Your task to perform on an android device: toggle translation in the chrome app Image 0: 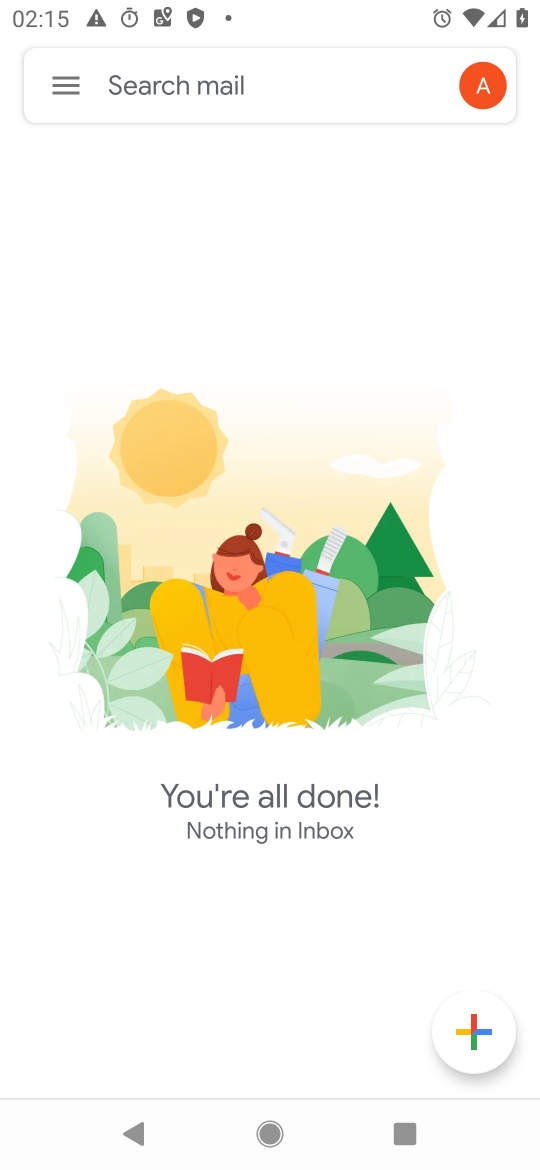
Step 0: press home button
Your task to perform on an android device: toggle translation in the chrome app Image 1: 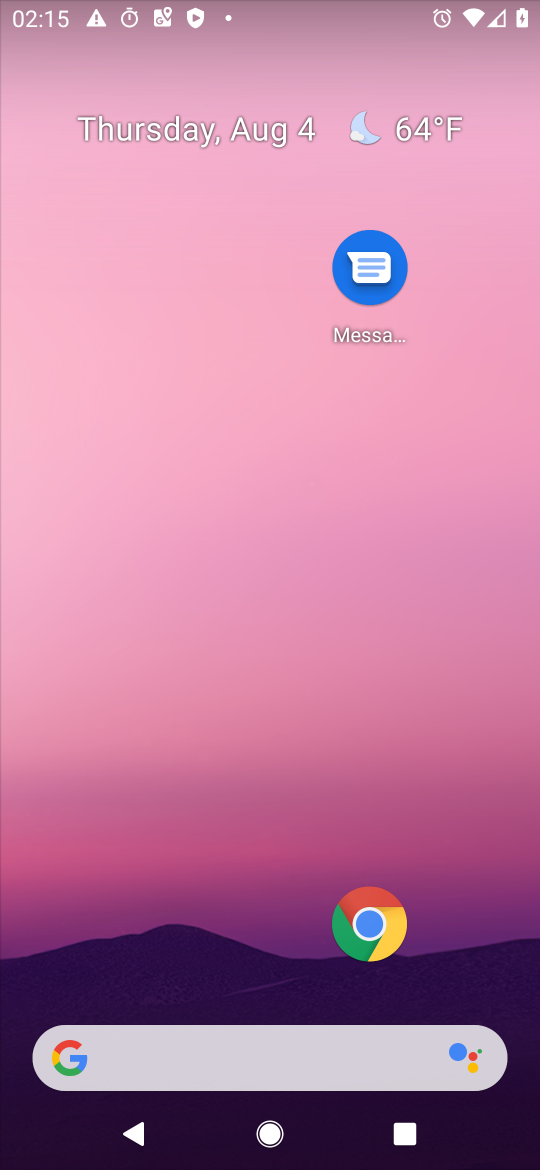
Step 1: click (369, 895)
Your task to perform on an android device: toggle translation in the chrome app Image 2: 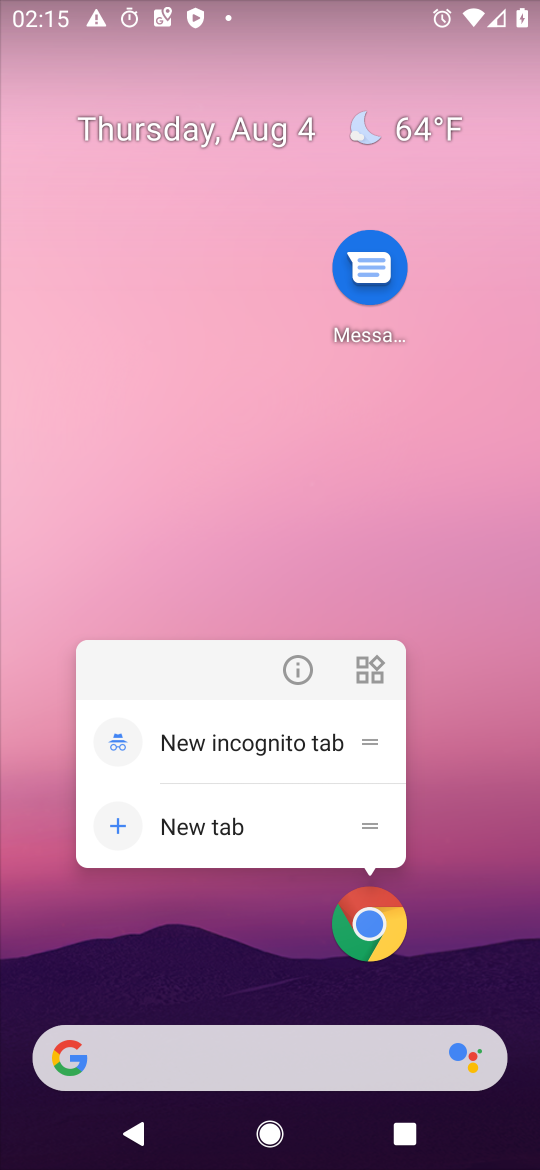
Step 2: click (342, 931)
Your task to perform on an android device: toggle translation in the chrome app Image 3: 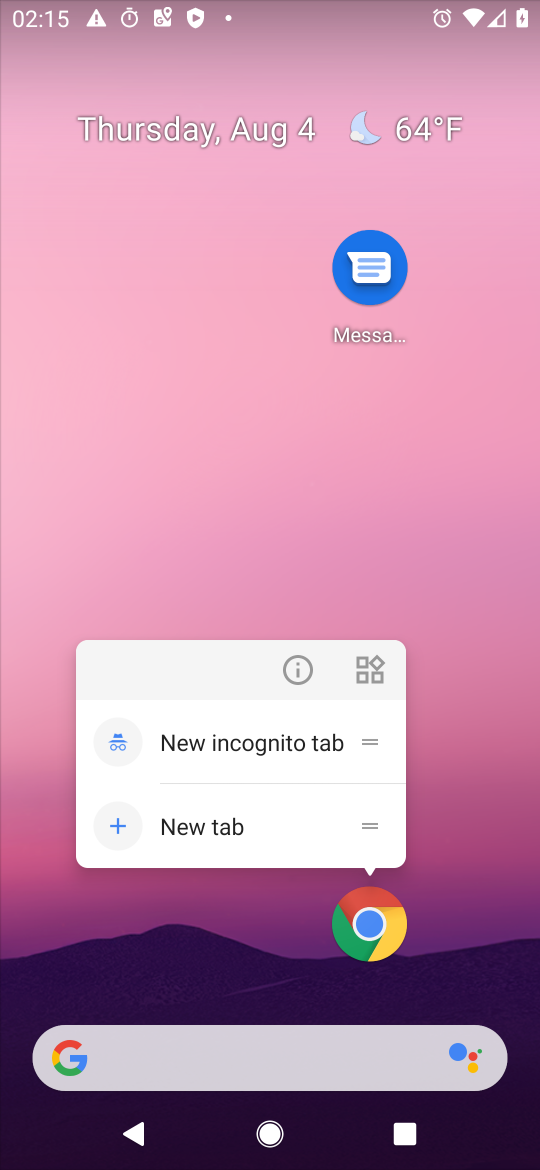
Step 3: click (384, 929)
Your task to perform on an android device: toggle translation in the chrome app Image 4: 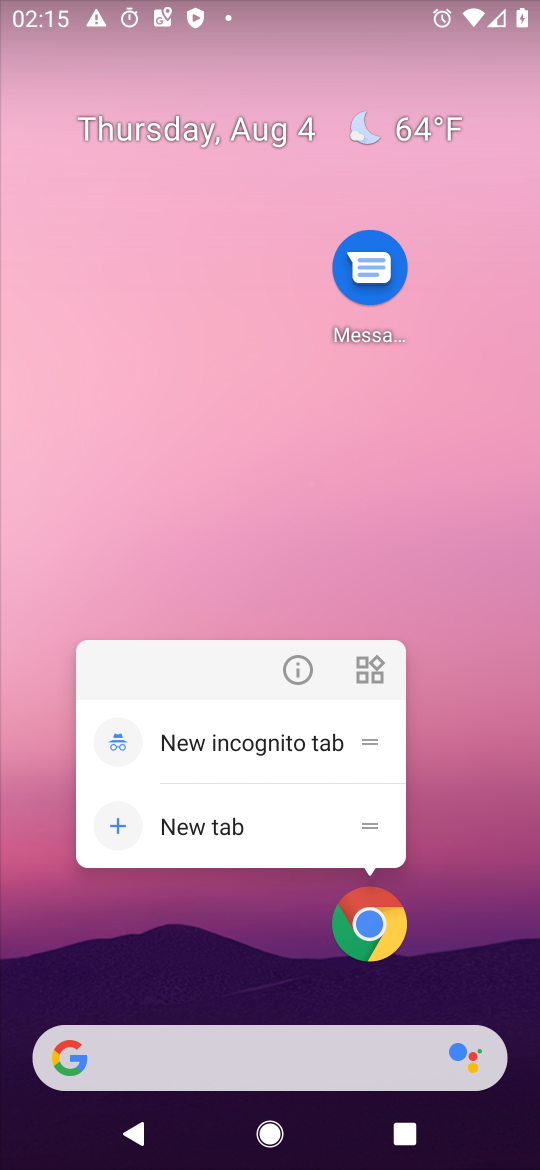
Step 4: click (354, 907)
Your task to perform on an android device: toggle translation in the chrome app Image 5: 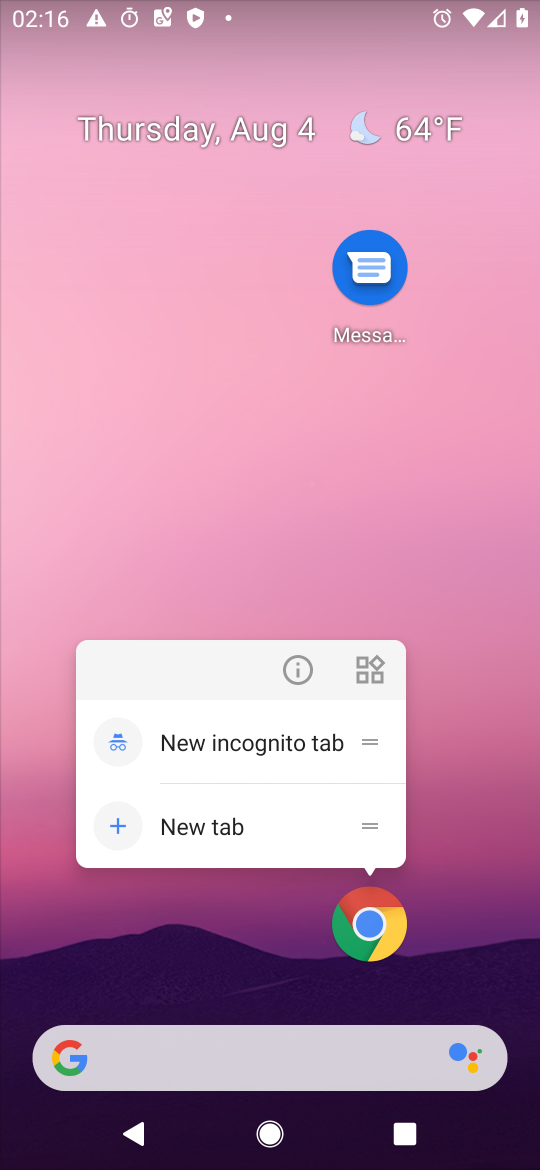
Step 5: task complete